Your task to perform on an android device: What is the recent news? Image 0: 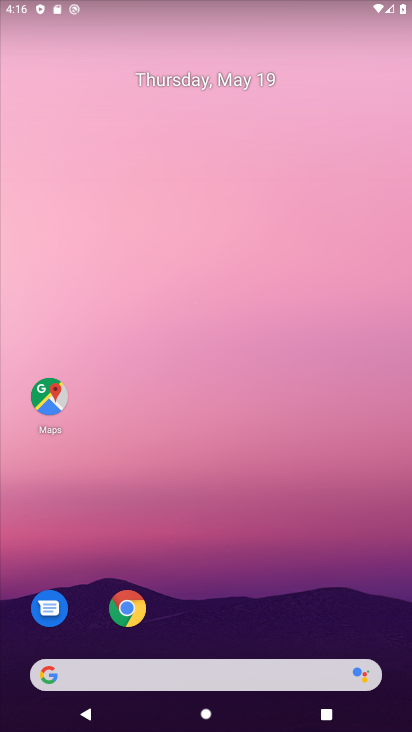
Step 0: drag from (232, 562) to (295, 89)
Your task to perform on an android device: What is the recent news? Image 1: 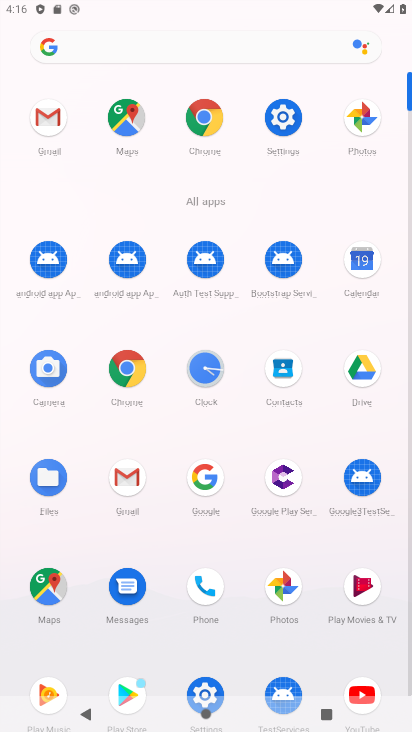
Step 1: click (200, 110)
Your task to perform on an android device: What is the recent news? Image 2: 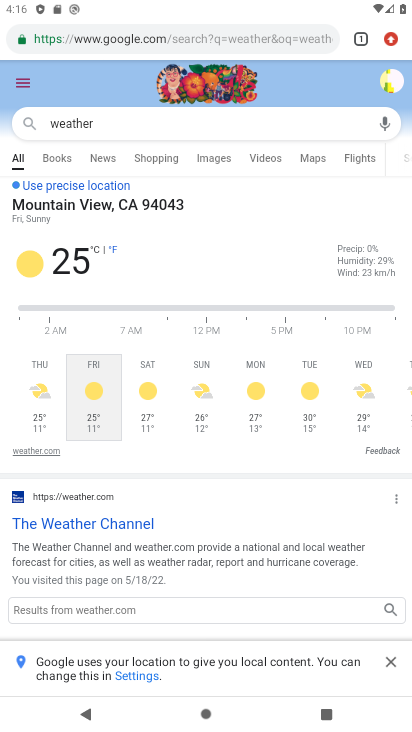
Step 2: click (221, 33)
Your task to perform on an android device: What is the recent news? Image 3: 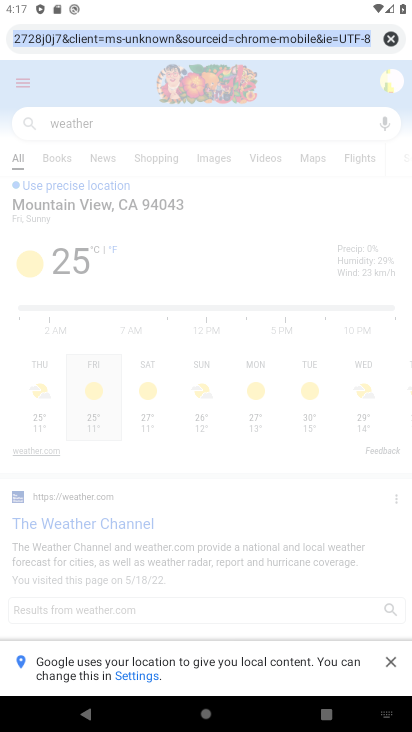
Step 3: type "news"
Your task to perform on an android device: What is the recent news? Image 4: 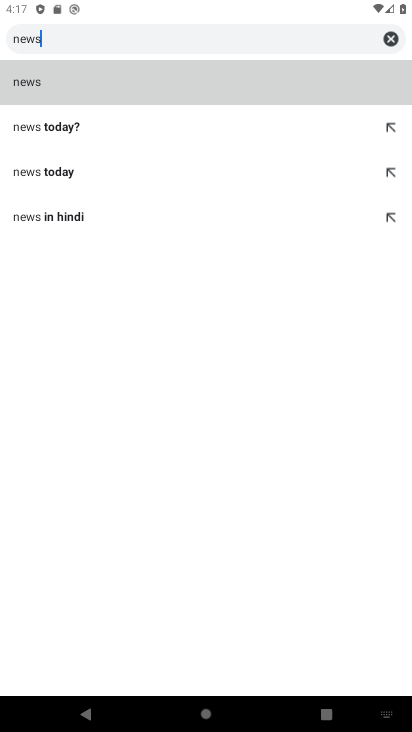
Step 4: click (37, 84)
Your task to perform on an android device: What is the recent news? Image 5: 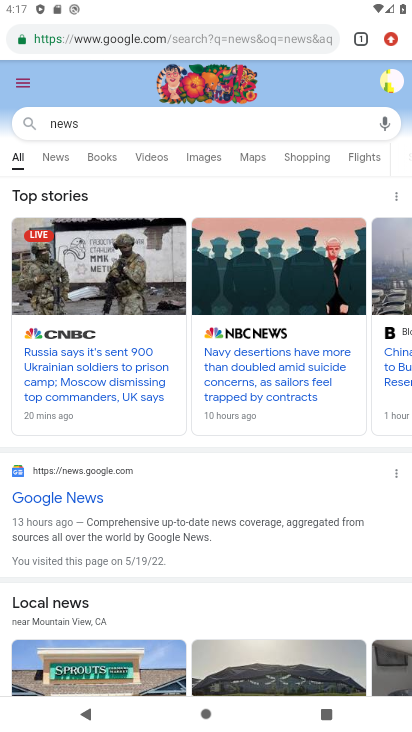
Step 5: click (64, 159)
Your task to perform on an android device: What is the recent news? Image 6: 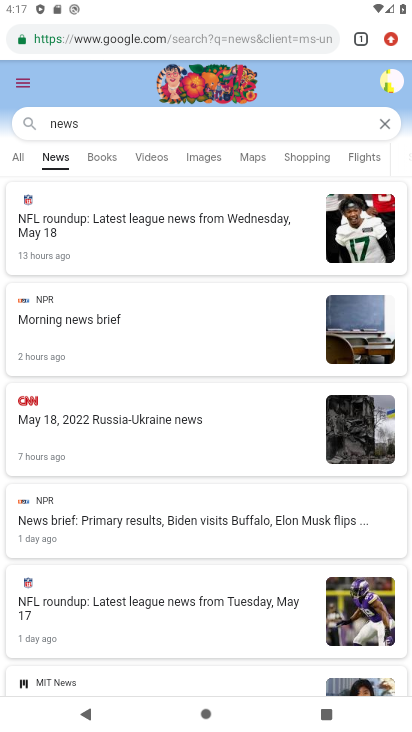
Step 6: task complete